Your task to perform on an android device: Turn off the flashlight Image 0: 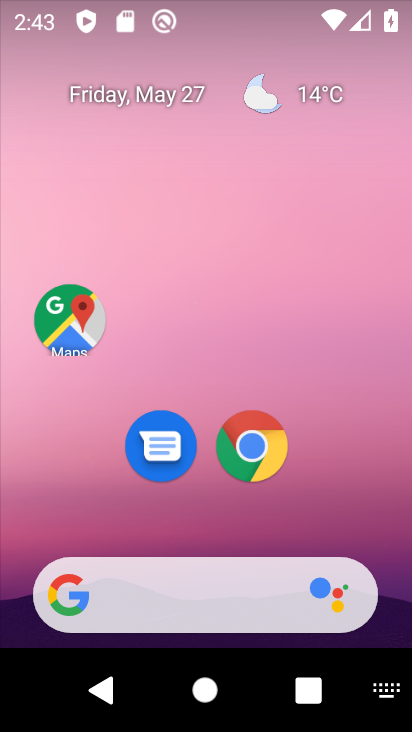
Step 0: press home button
Your task to perform on an android device: Turn off the flashlight Image 1: 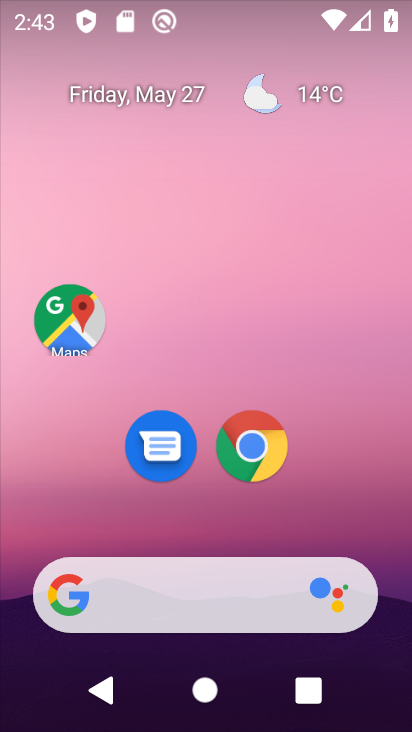
Step 1: task complete